Your task to perform on an android device: Open Google Chrome Image 0: 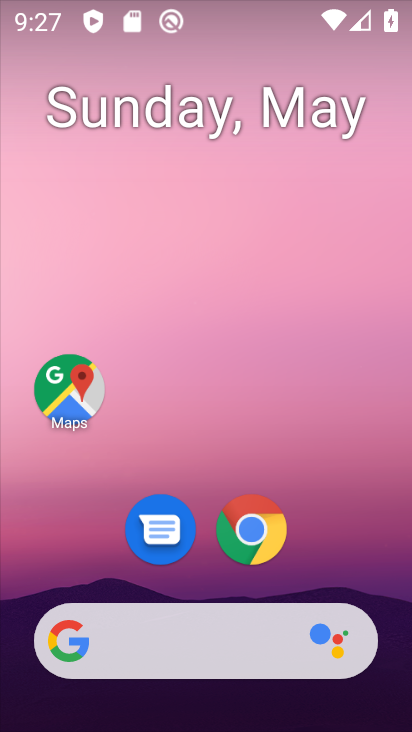
Step 0: click (257, 517)
Your task to perform on an android device: Open Google Chrome Image 1: 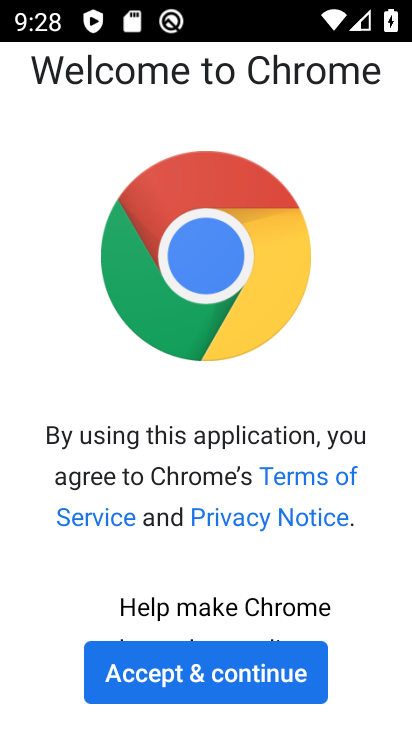
Step 1: click (289, 659)
Your task to perform on an android device: Open Google Chrome Image 2: 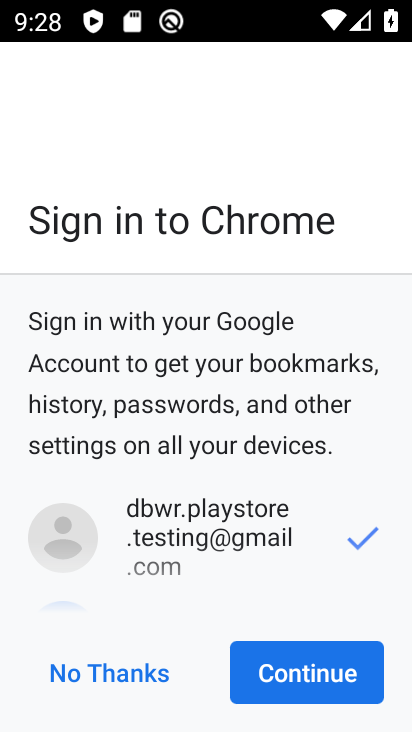
Step 2: click (300, 673)
Your task to perform on an android device: Open Google Chrome Image 3: 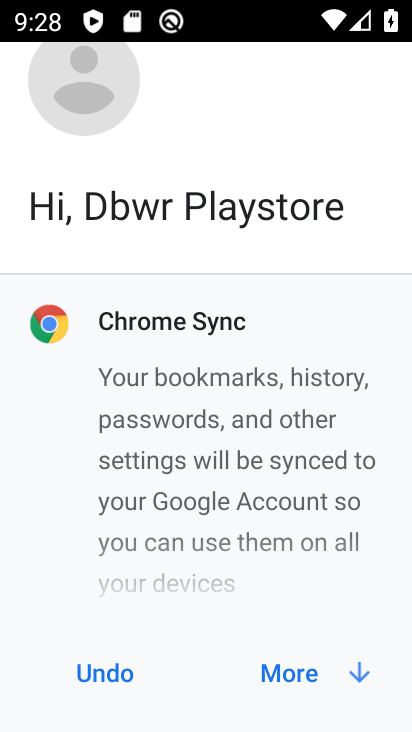
Step 3: click (300, 671)
Your task to perform on an android device: Open Google Chrome Image 4: 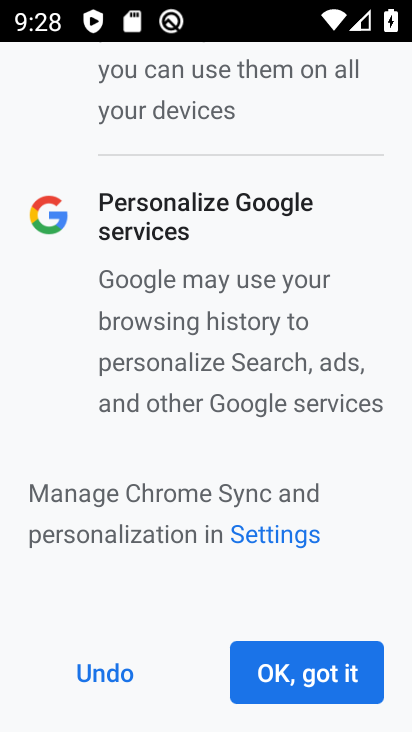
Step 4: click (300, 671)
Your task to perform on an android device: Open Google Chrome Image 5: 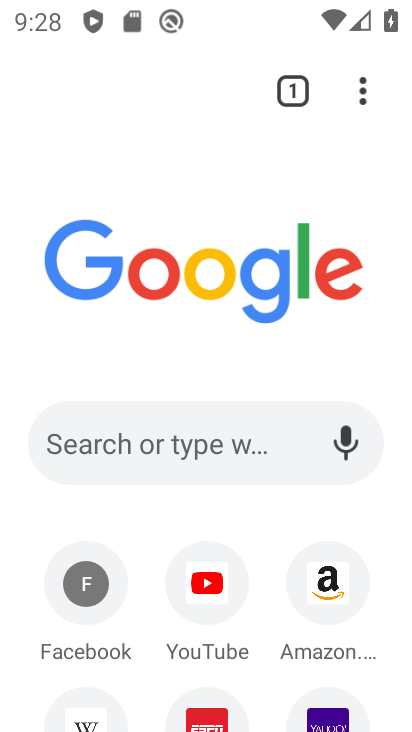
Step 5: task complete